Your task to perform on an android device: What's the weather? Image 0: 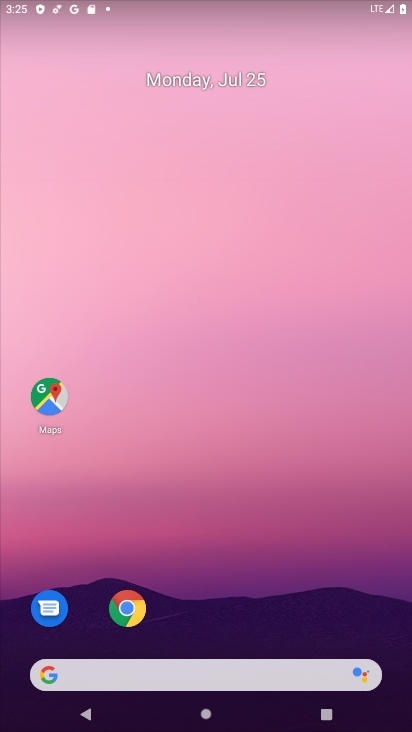
Step 0: click (146, 670)
Your task to perform on an android device: What's the weather? Image 1: 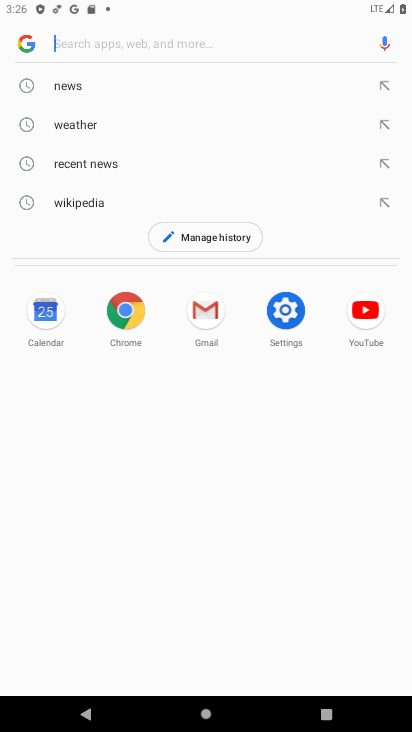
Step 1: click (146, 134)
Your task to perform on an android device: What's the weather? Image 2: 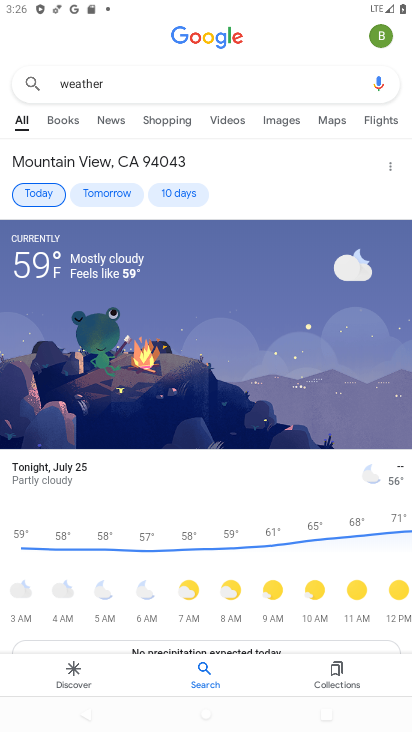
Step 2: task complete